Your task to perform on an android device: Open the stopwatch Image 0: 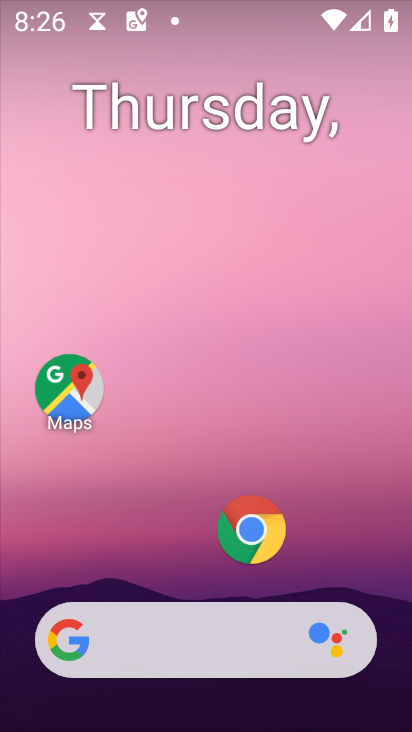
Step 0: press home button
Your task to perform on an android device: Open the stopwatch Image 1: 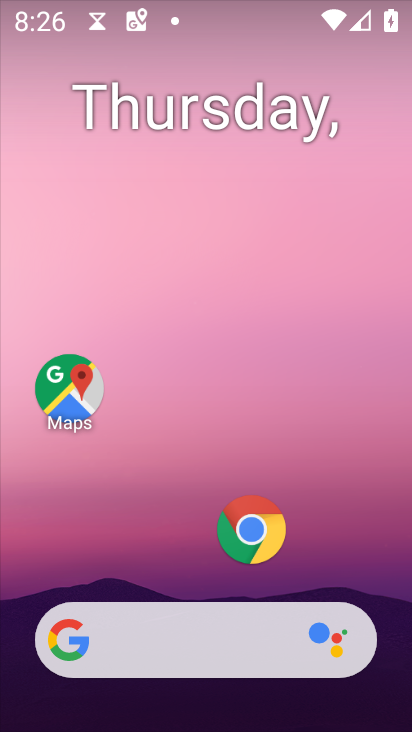
Step 1: drag from (206, 580) to (204, 14)
Your task to perform on an android device: Open the stopwatch Image 2: 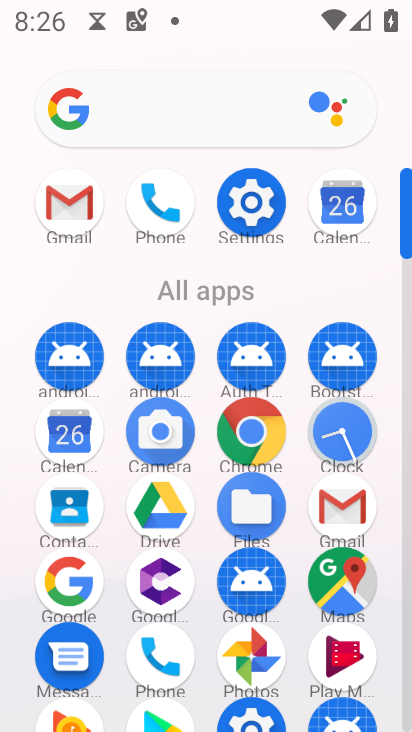
Step 2: click (342, 422)
Your task to perform on an android device: Open the stopwatch Image 3: 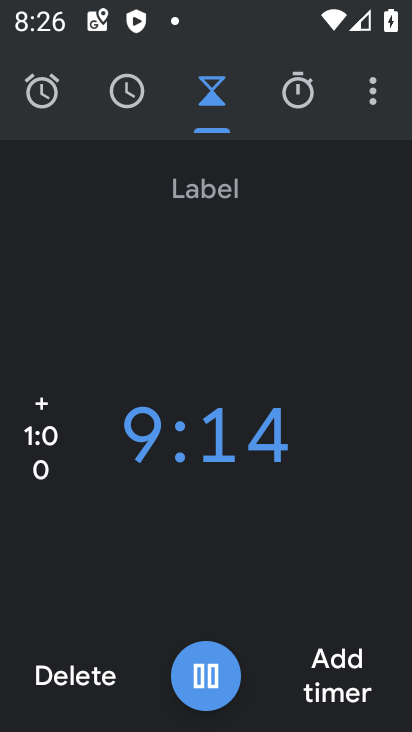
Step 3: click (77, 676)
Your task to perform on an android device: Open the stopwatch Image 4: 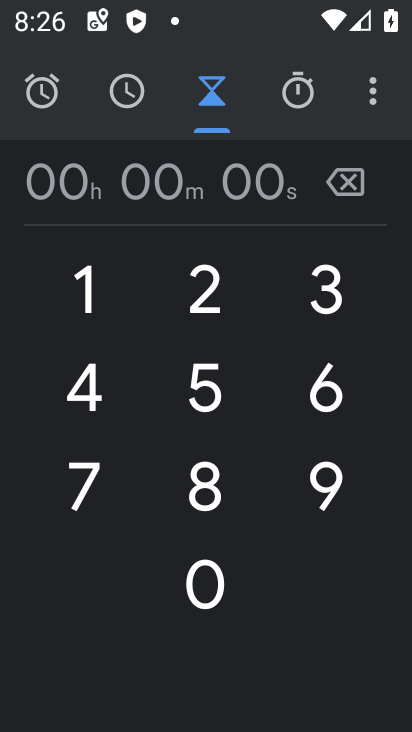
Step 4: click (295, 85)
Your task to perform on an android device: Open the stopwatch Image 5: 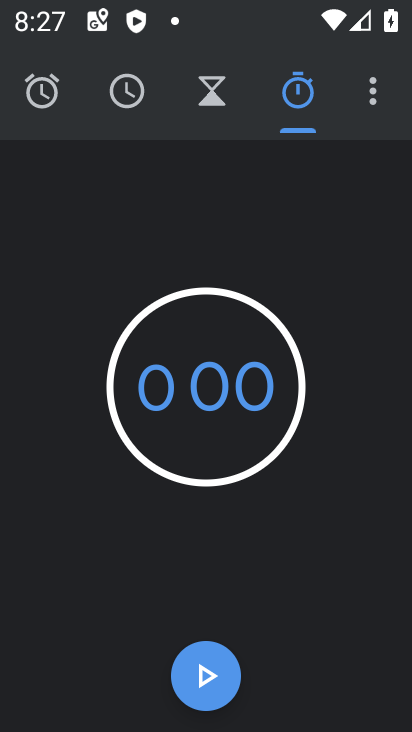
Step 5: click (203, 663)
Your task to perform on an android device: Open the stopwatch Image 6: 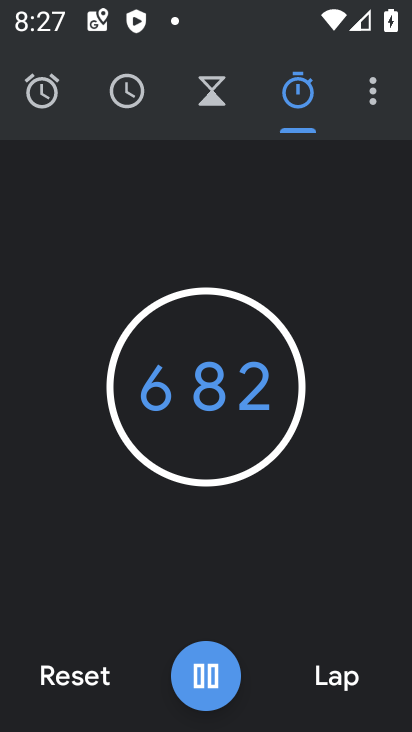
Step 6: task complete